Your task to perform on an android device: toggle location history Image 0: 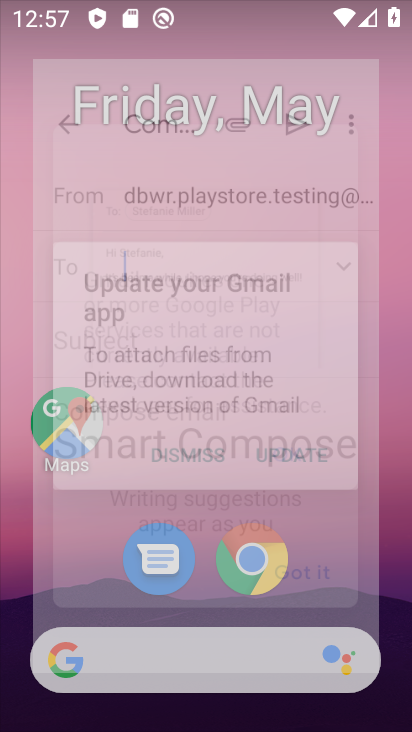
Step 0: drag from (364, 585) to (324, 279)
Your task to perform on an android device: toggle location history Image 1: 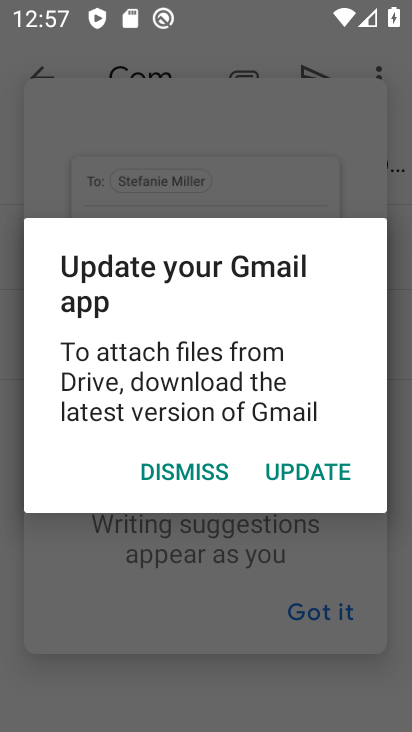
Step 1: press home button
Your task to perform on an android device: toggle location history Image 2: 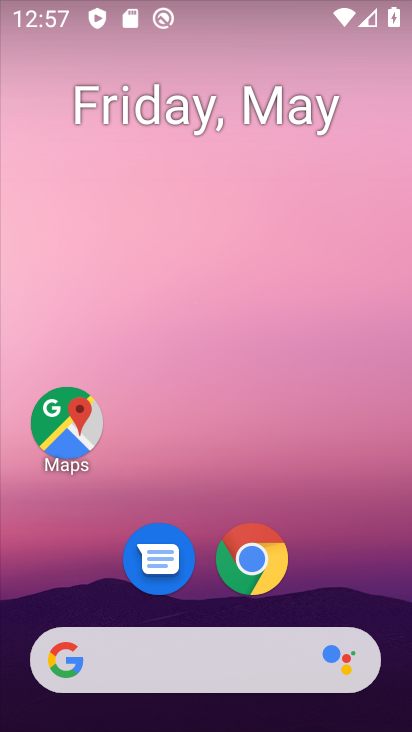
Step 2: drag from (354, 550) to (355, 121)
Your task to perform on an android device: toggle location history Image 3: 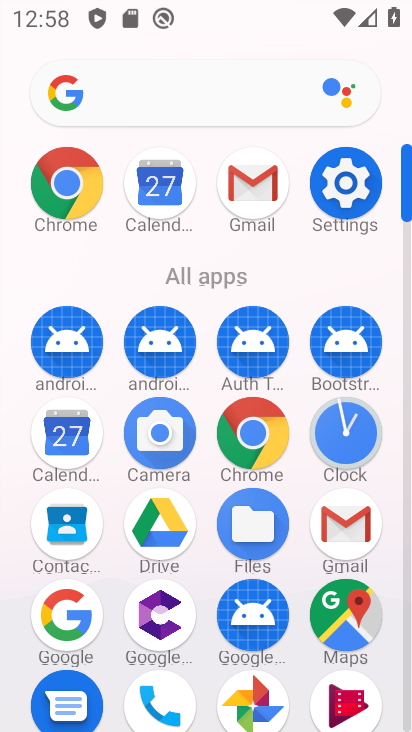
Step 3: click (344, 200)
Your task to perform on an android device: toggle location history Image 4: 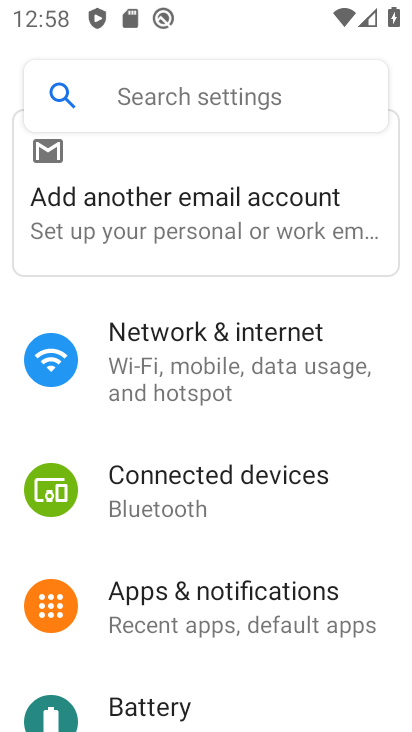
Step 4: drag from (311, 620) to (305, 252)
Your task to perform on an android device: toggle location history Image 5: 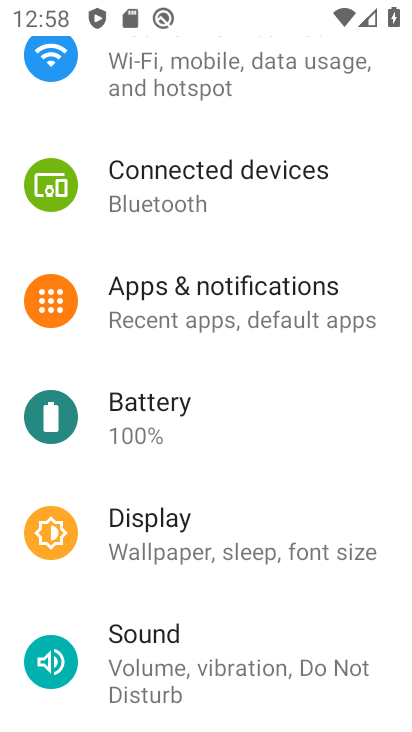
Step 5: drag from (312, 613) to (312, 320)
Your task to perform on an android device: toggle location history Image 6: 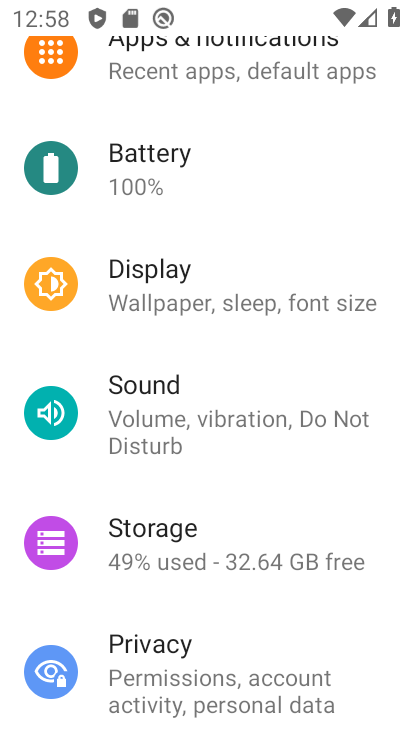
Step 6: drag from (303, 601) to (281, 203)
Your task to perform on an android device: toggle location history Image 7: 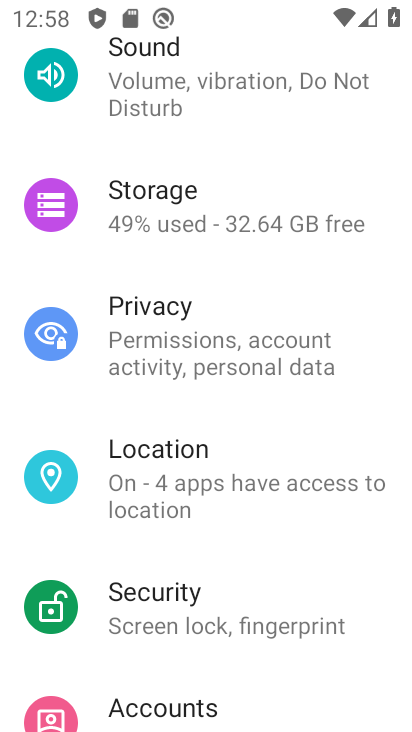
Step 7: click (237, 460)
Your task to perform on an android device: toggle location history Image 8: 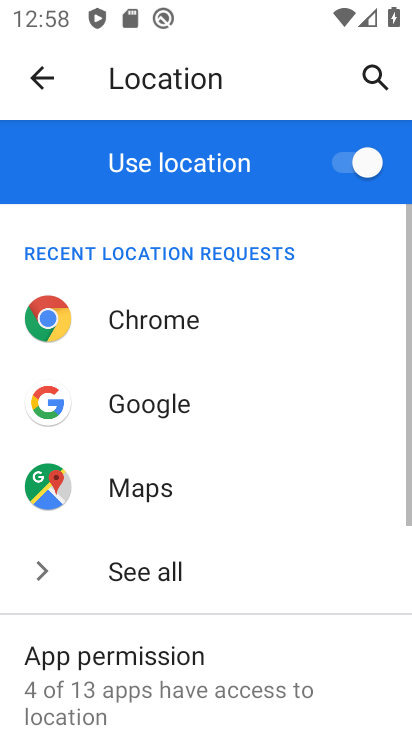
Step 8: drag from (273, 656) to (255, 319)
Your task to perform on an android device: toggle location history Image 9: 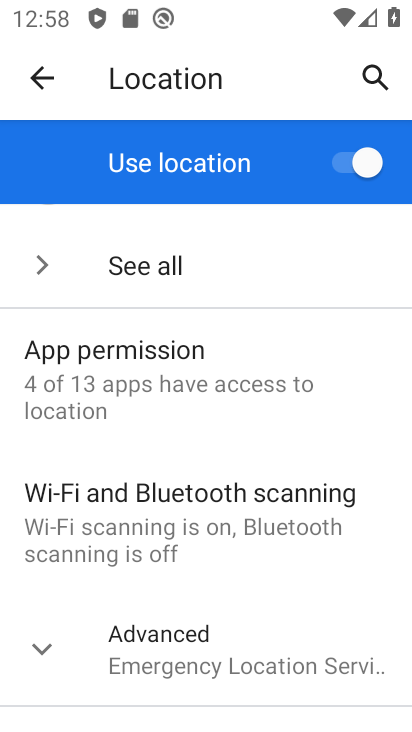
Step 9: click (304, 651)
Your task to perform on an android device: toggle location history Image 10: 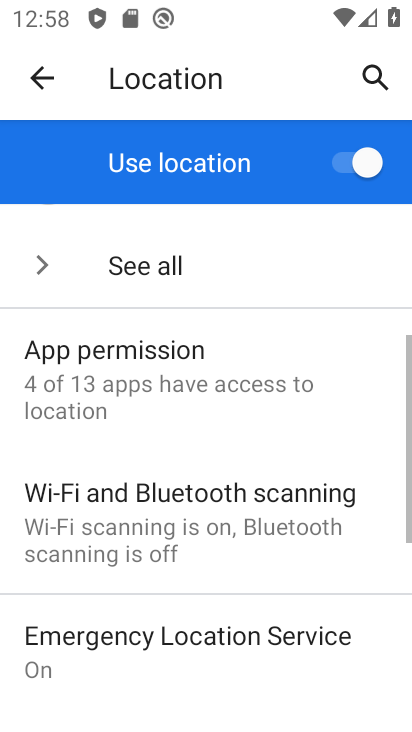
Step 10: drag from (316, 679) to (309, 372)
Your task to perform on an android device: toggle location history Image 11: 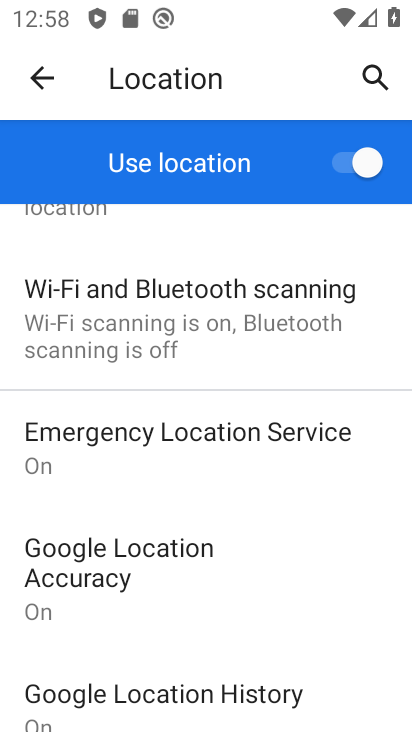
Step 11: drag from (173, 674) to (190, 495)
Your task to perform on an android device: toggle location history Image 12: 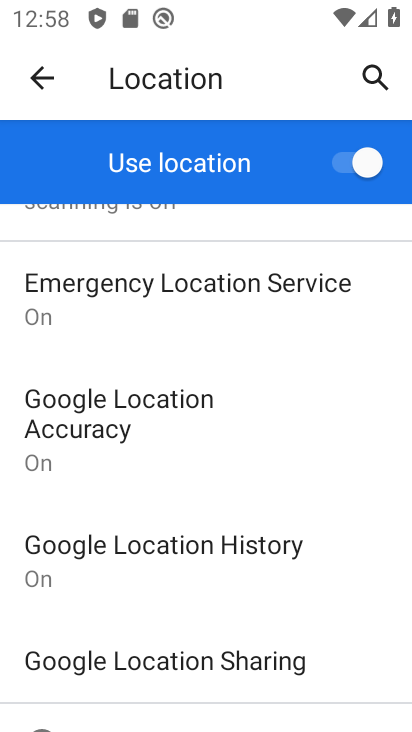
Step 12: click (176, 557)
Your task to perform on an android device: toggle location history Image 13: 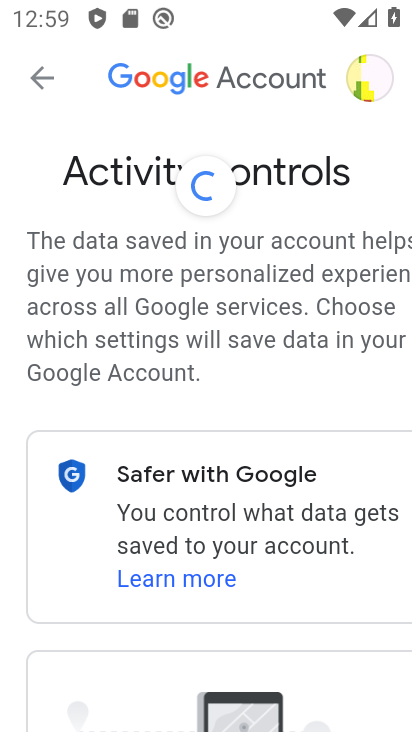
Step 13: drag from (164, 702) to (159, 246)
Your task to perform on an android device: toggle location history Image 14: 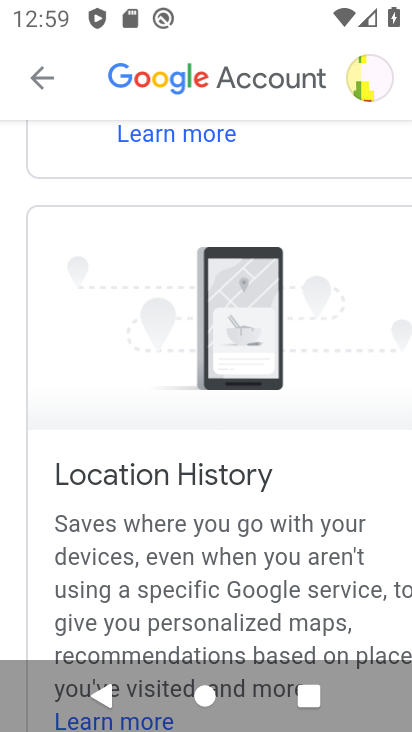
Step 14: drag from (142, 578) to (134, 168)
Your task to perform on an android device: toggle location history Image 15: 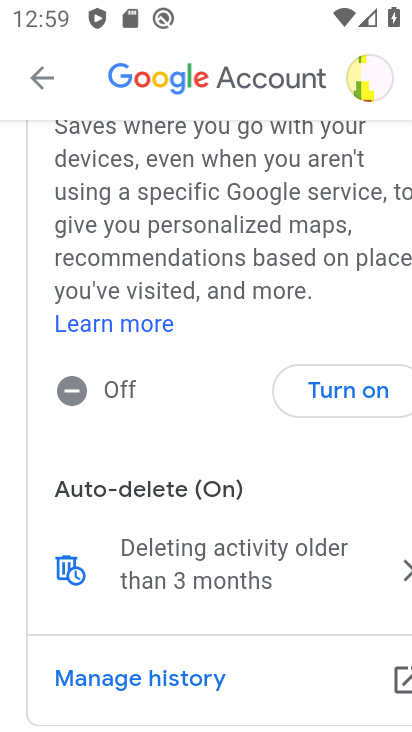
Step 15: click (360, 387)
Your task to perform on an android device: toggle location history Image 16: 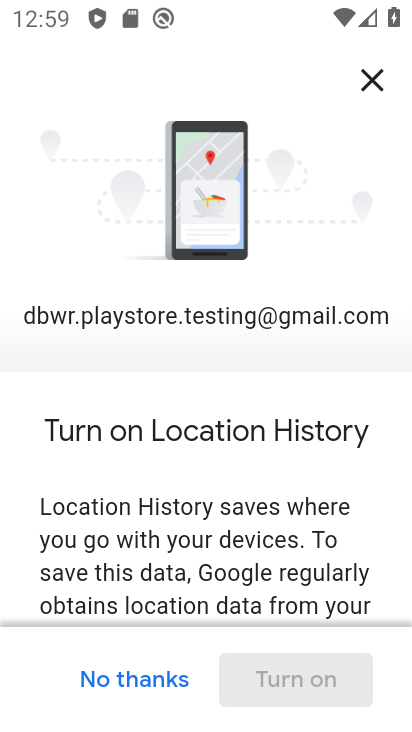
Step 16: drag from (331, 576) to (312, 180)
Your task to perform on an android device: toggle location history Image 17: 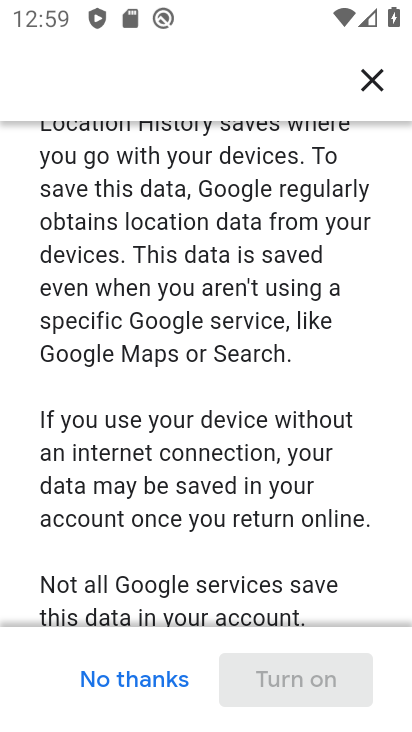
Step 17: drag from (301, 587) to (235, 202)
Your task to perform on an android device: toggle location history Image 18: 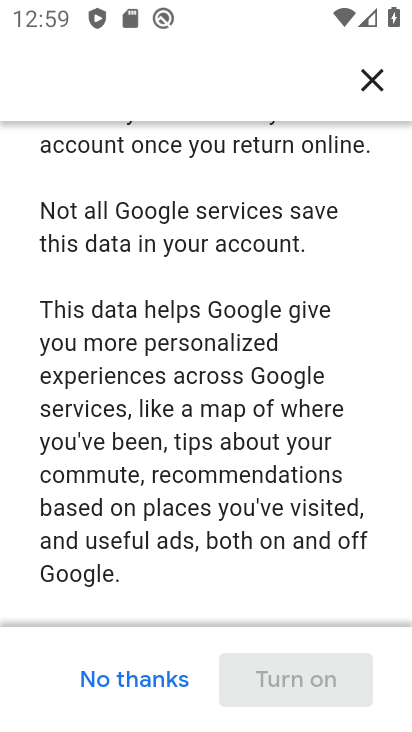
Step 18: drag from (205, 603) to (181, 2)
Your task to perform on an android device: toggle location history Image 19: 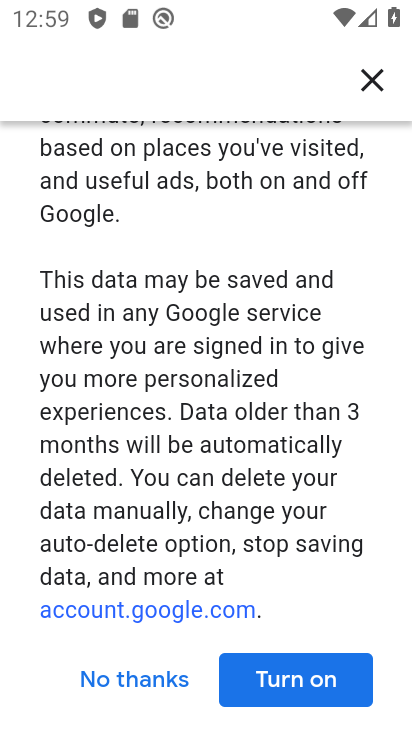
Step 19: click (255, 677)
Your task to perform on an android device: toggle location history Image 20: 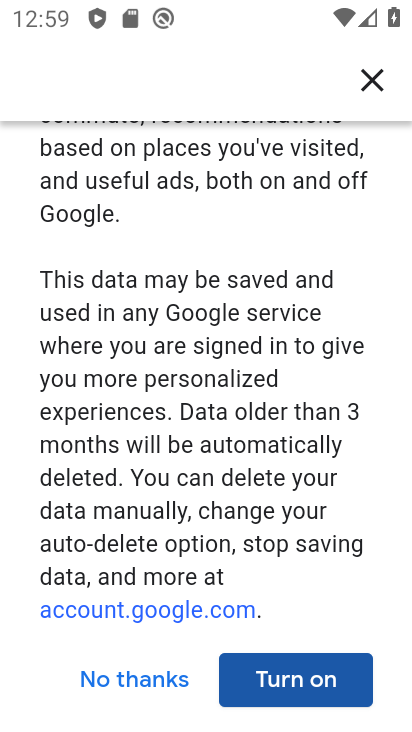
Step 20: click (257, 673)
Your task to perform on an android device: toggle location history Image 21: 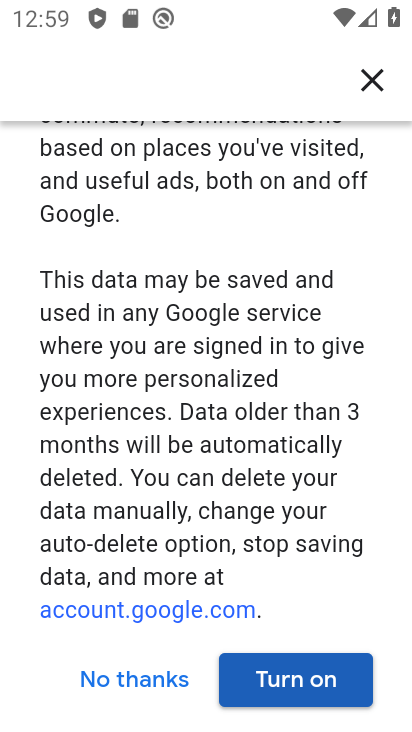
Step 21: click (258, 670)
Your task to perform on an android device: toggle location history Image 22: 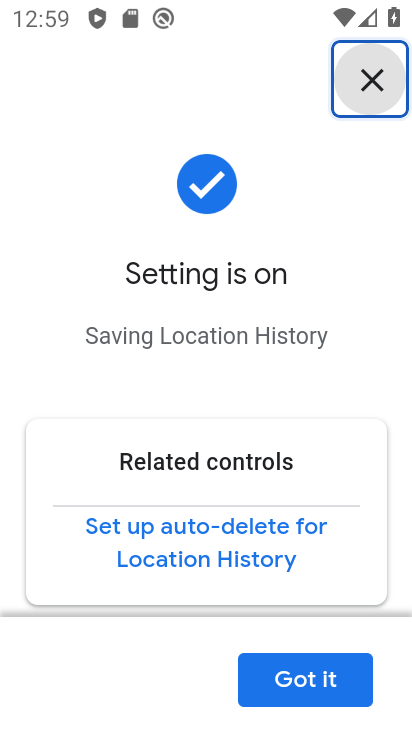
Step 22: task complete